Your task to perform on an android device: change the clock display to digital Image 0: 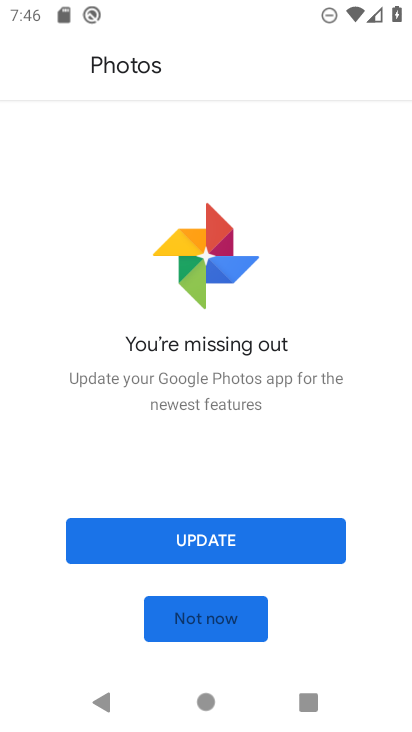
Step 0: press home button
Your task to perform on an android device: change the clock display to digital Image 1: 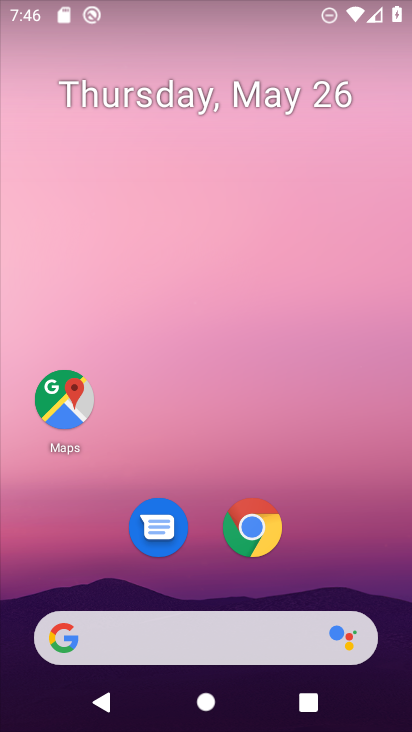
Step 1: drag from (62, 537) to (232, 148)
Your task to perform on an android device: change the clock display to digital Image 2: 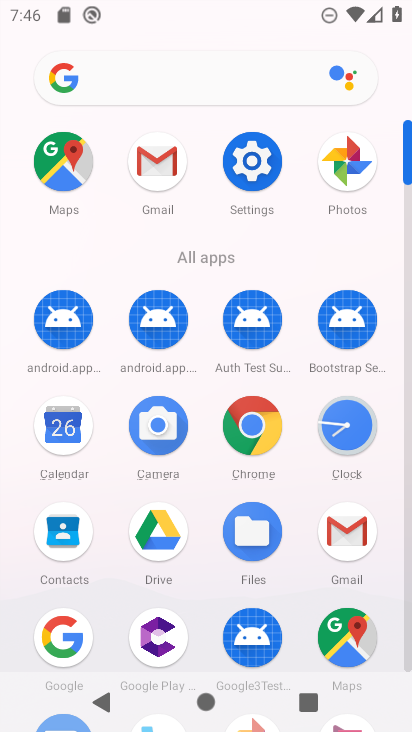
Step 2: click (345, 424)
Your task to perform on an android device: change the clock display to digital Image 3: 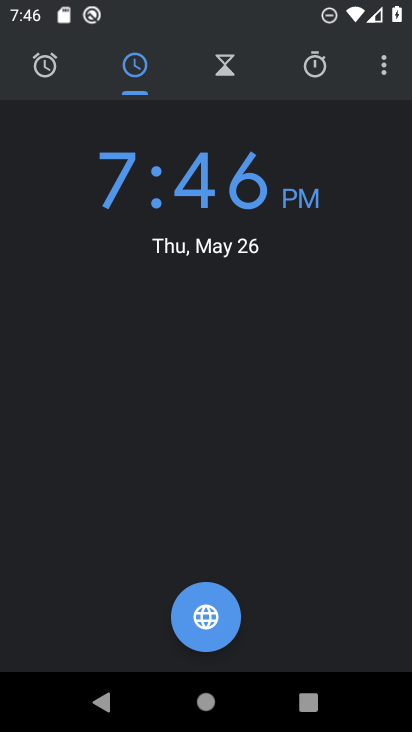
Step 3: click (388, 65)
Your task to perform on an android device: change the clock display to digital Image 4: 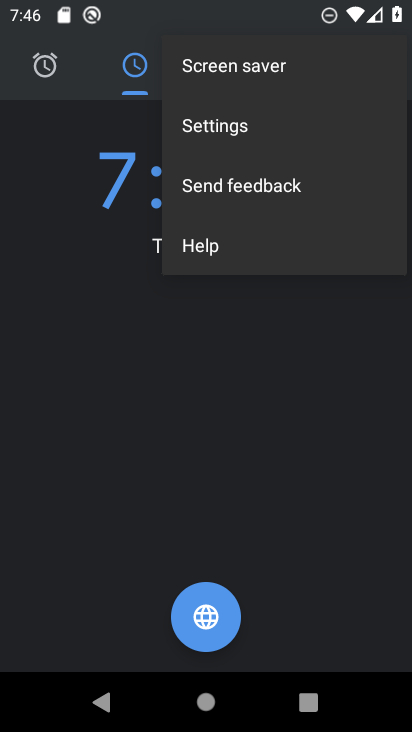
Step 4: click (212, 127)
Your task to perform on an android device: change the clock display to digital Image 5: 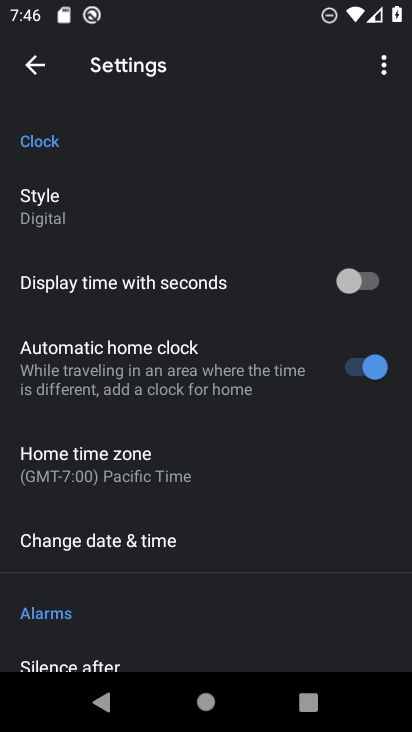
Step 5: task complete